Your task to perform on an android device: Open internet settings Image 0: 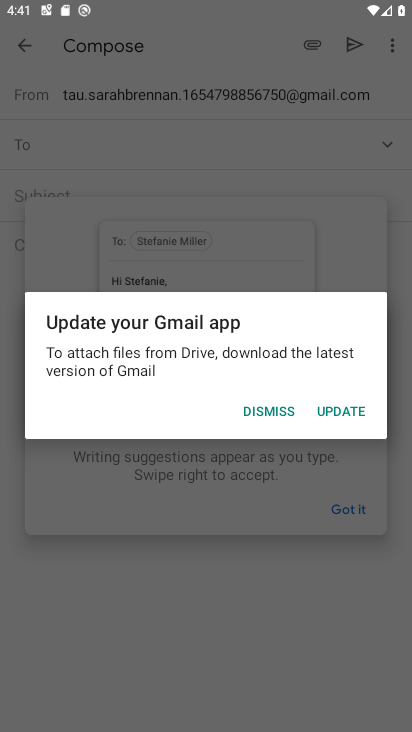
Step 0: press home button
Your task to perform on an android device: Open internet settings Image 1: 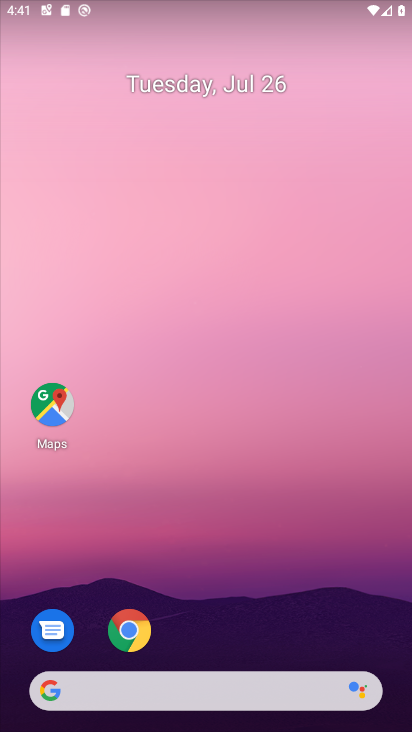
Step 1: drag from (231, 623) to (189, 176)
Your task to perform on an android device: Open internet settings Image 2: 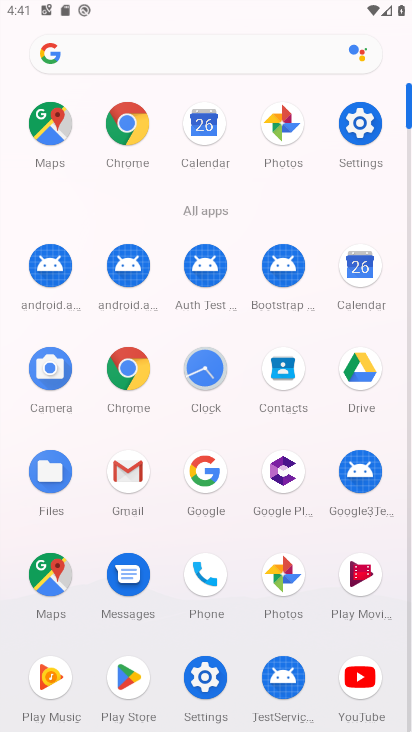
Step 2: click (359, 123)
Your task to perform on an android device: Open internet settings Image 3: 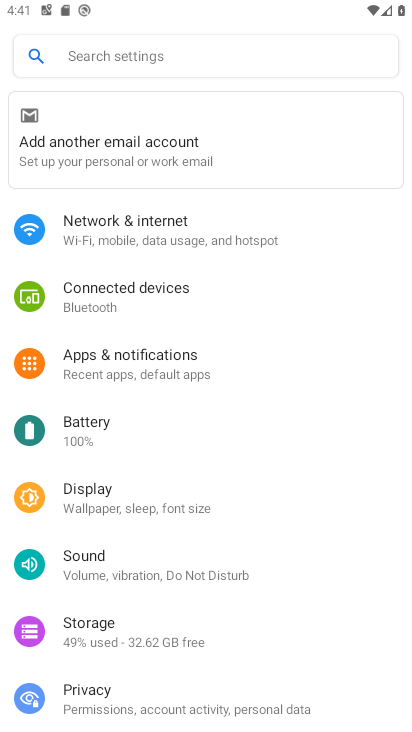
Step 3: click (279, 223)
Your task to perform on an android device: Open internet settings Image 4: 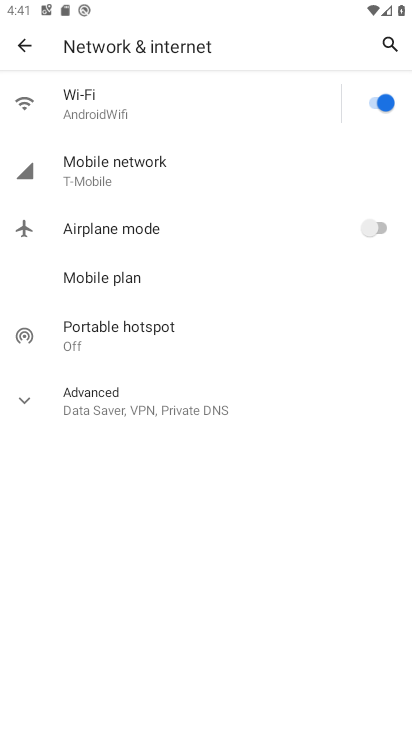
Step 4: task complete